Your task to perform on an android device: empty trash in the gmail app Image 0: 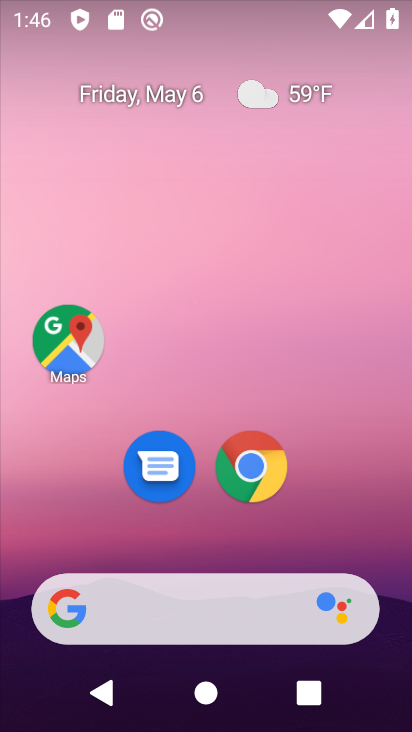
Step 0: drag from (207, 536) to (285, 54)
Your task to perform on an android device: empty trash in the gmail app Image 1: 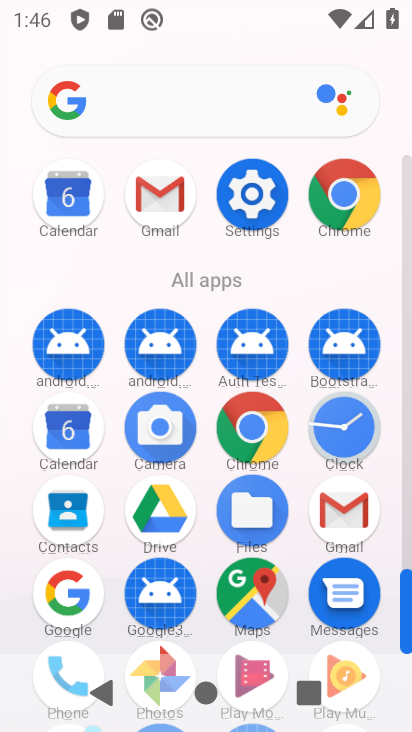
Step 1: click (343, 506)
Your task to perform on an android device: empty trash in the gmail app Image 2: 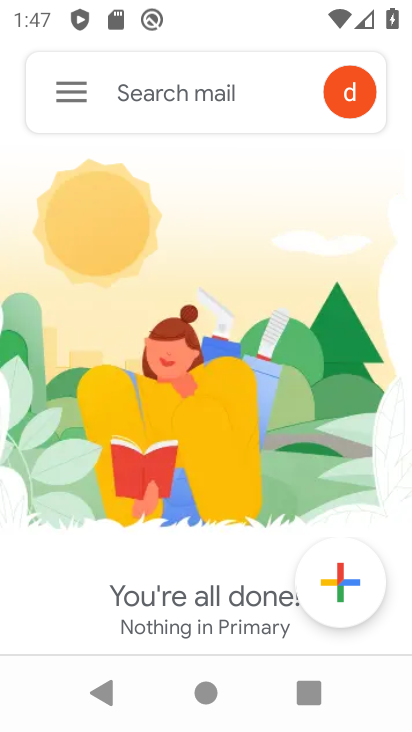
Step 2: click (66, 86)
Your task to perform on an android device: empty trash in the gmail app Image 3: 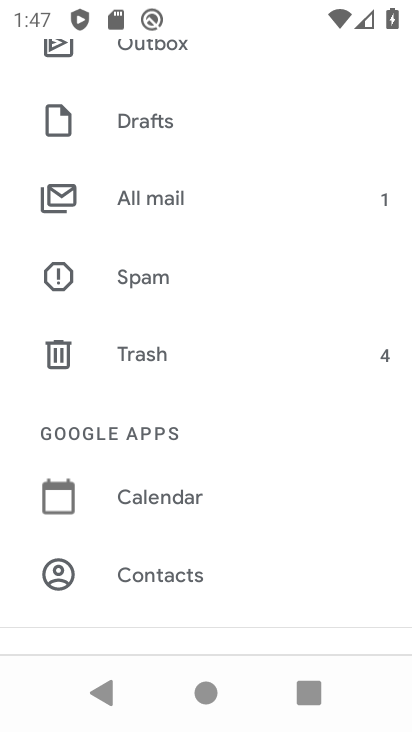
Step 3: click (141, 348)
Your task to perform on an android device: empty trash in the gmail app Image 4: 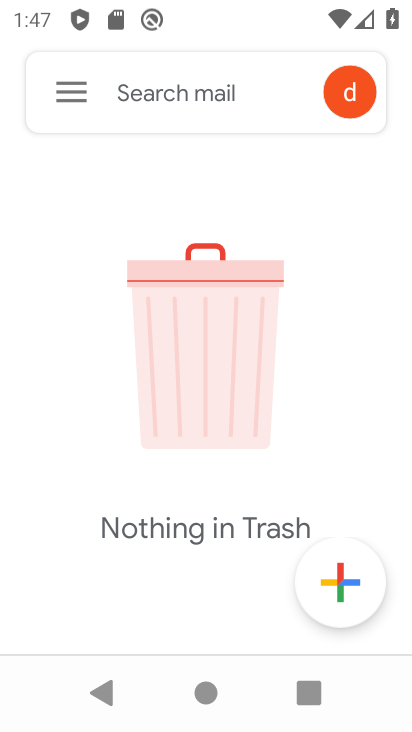
Step 4: task complete